Your task to perform on an android device: turn on bluetooth scan Image 0: 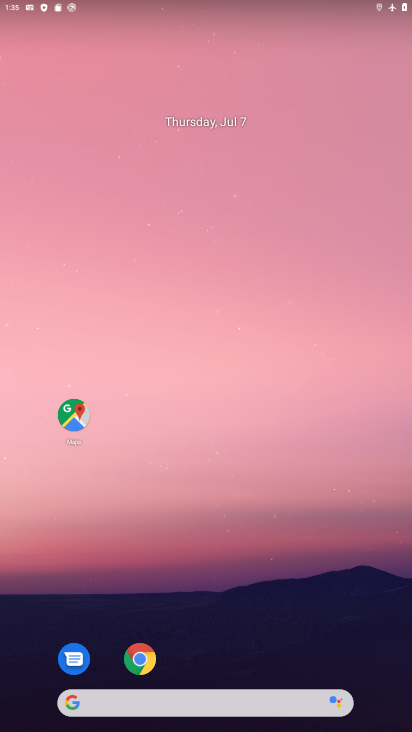
Step 0: drag from (230, 629) to (218, 176)
Your task to perform on an android device: turn on bluetooth scan Image 1: 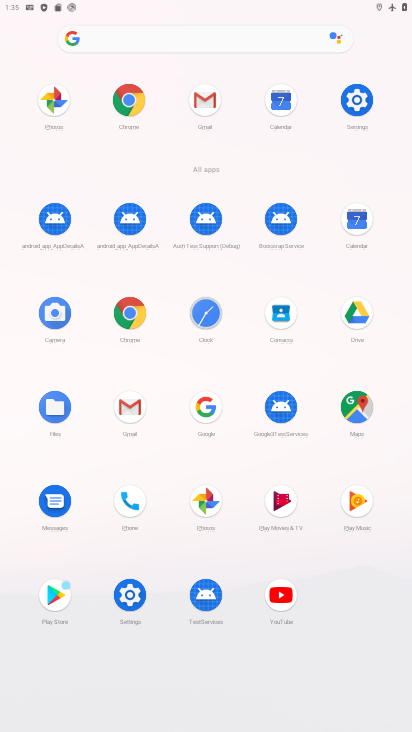
Step 1: click (357, 111)
Your task to perform on an android device: turn on bluetooth scan Image 2: 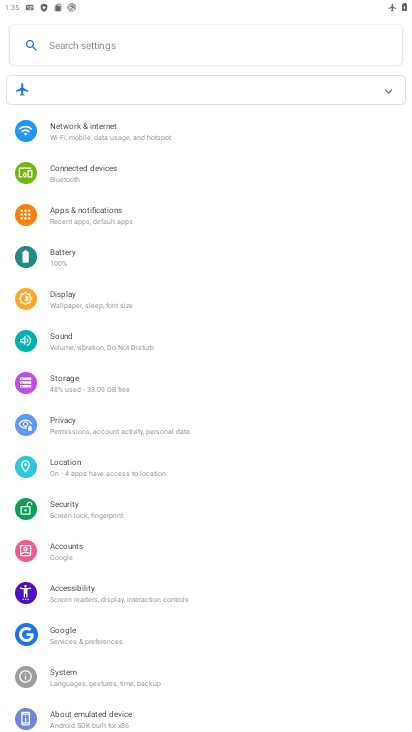
Step 2: click (127, 178)
Your task to perform on an android device: turn on bluetooth scan Image 3: 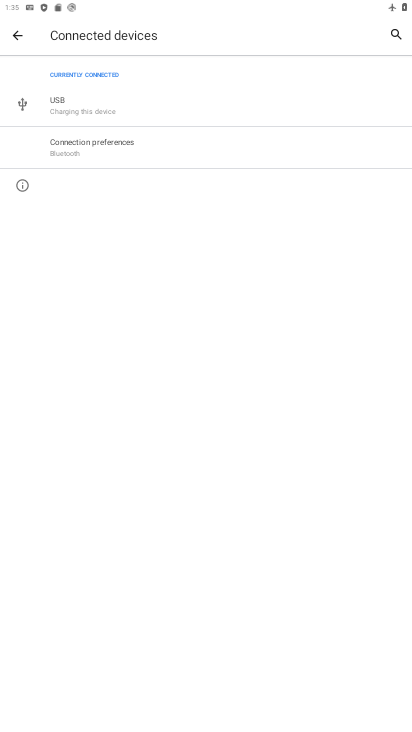
Step 3: click (154, 151)
Your task to perform on an android device: turn on bluetooth scan Image 4: 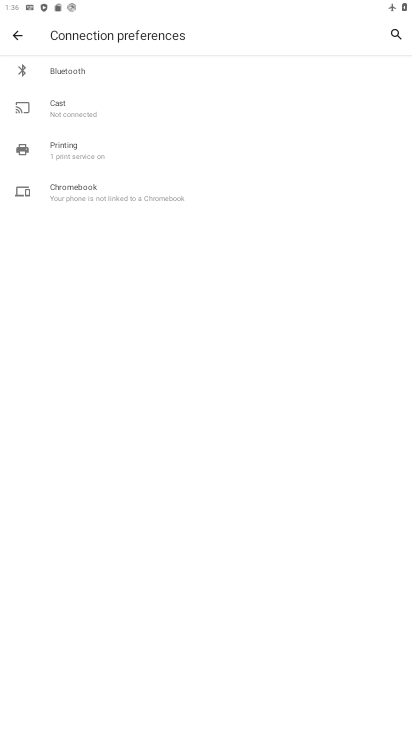
Step 4: click (109, 70)
Your task to perform on an android device: turn on bluetooth scan Image 5: 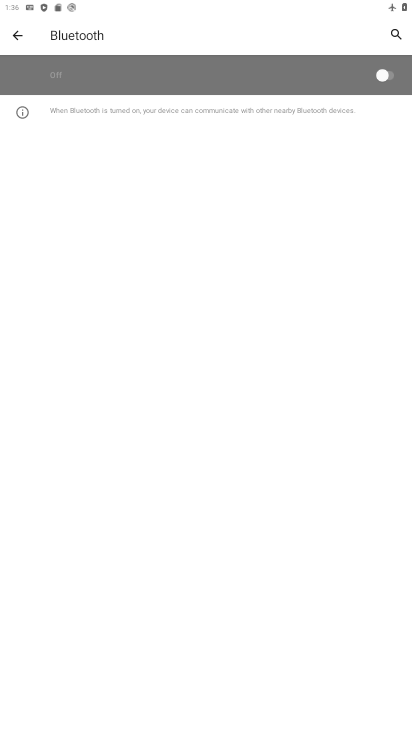
Step 5: click (109, 70)
Your task to perform on an android device: turn on bluetooth scan Image 6: 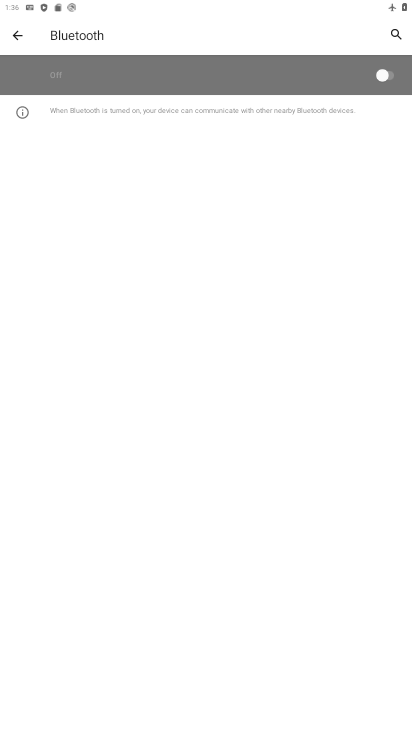
Step 6: click (380, 73)
Your task to perform on an android device: turn on bluetooth scan Image 7: 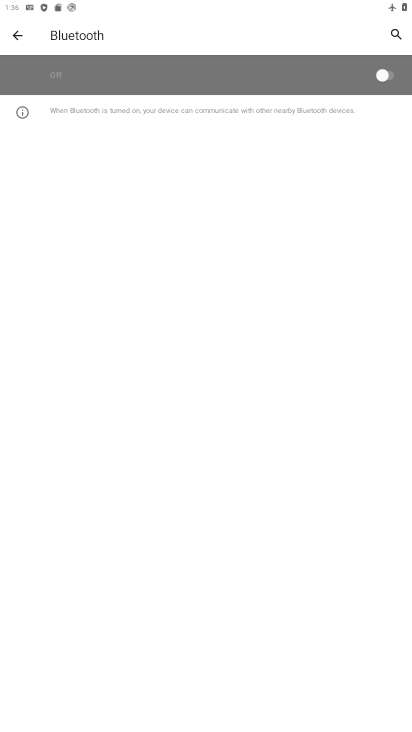
Step 7: click (380, 73)
Your task to perform on an android device: turn on bluetooth scan Image 8: 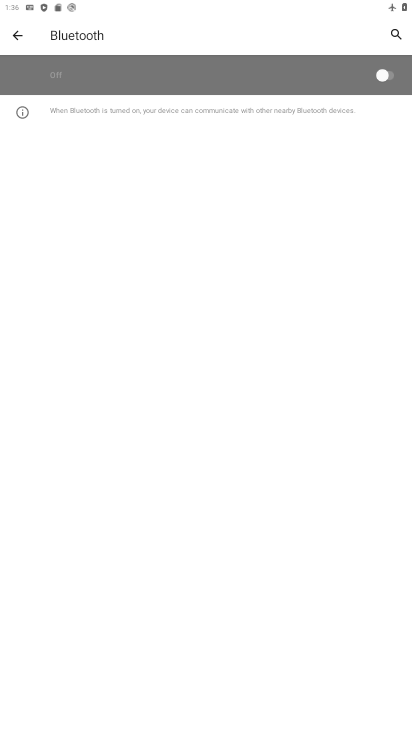
Step 8: click (380, 73)
Your task to perform on an android device: turn on bluetooth scan Image 9: 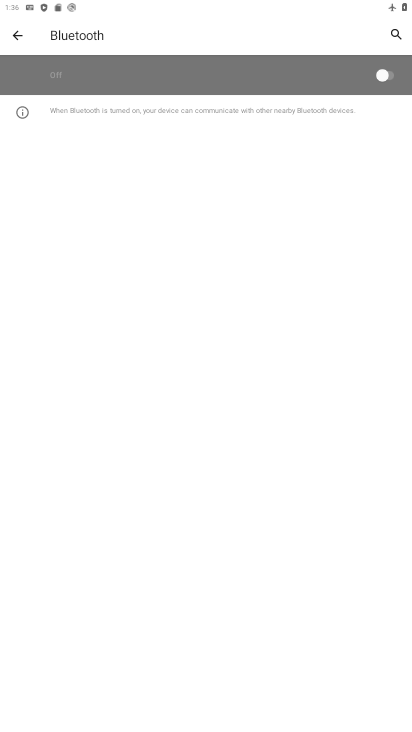
Step 9: click (380, 73)
Your task to perform on an android device: turn on bluetooth scan Image 10: 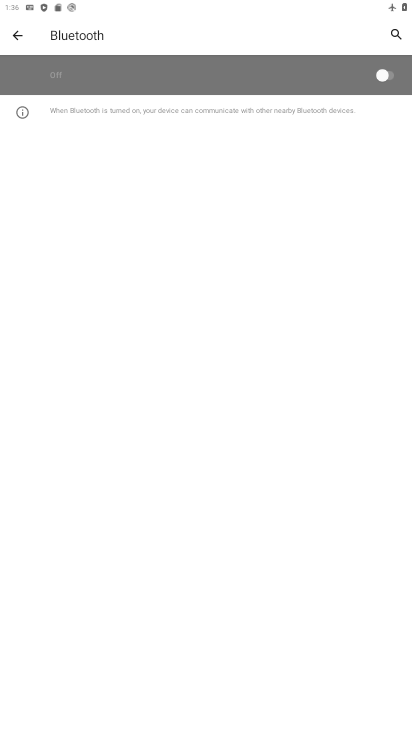
Step 10: click (380, 73)
Your task to perform on an android device: turn on bluetooth scan Image 11: 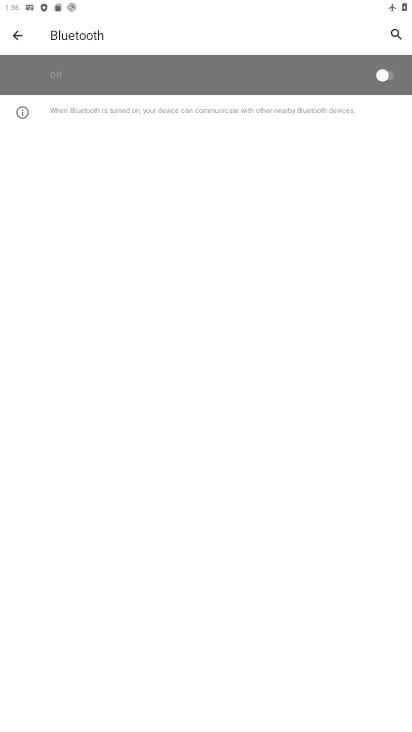
Step 11: click (380, 73)
Your task to perform on an android device: turn on bluetooth scan Image 12: 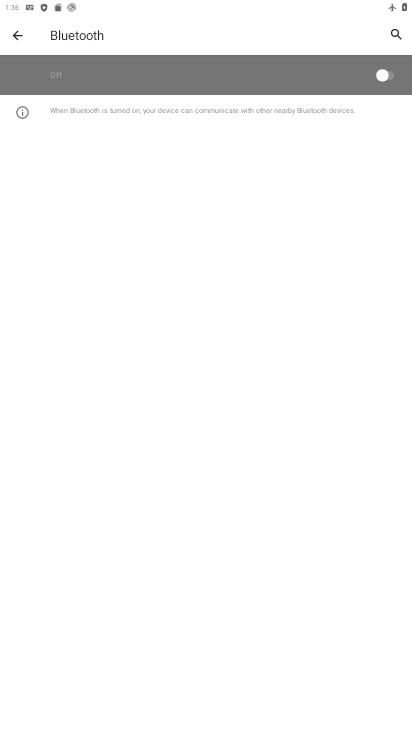
Step 12: task complete